Your task to perform on an android device: Open settings on Google Maps Image 0: 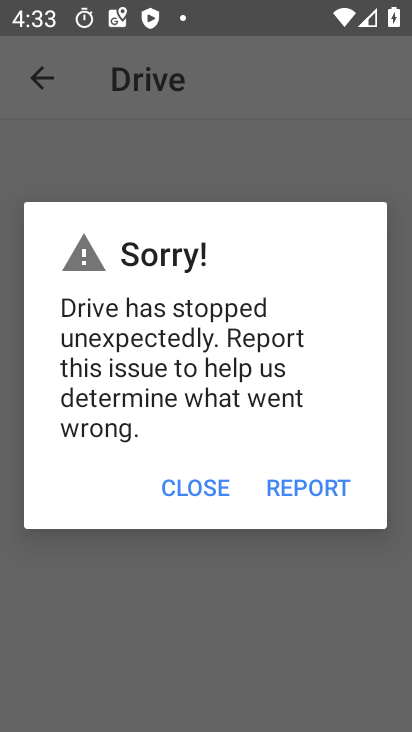
Step 0: press home button
Your task to perform on an android device: Open settings on Google Maps Image 1: 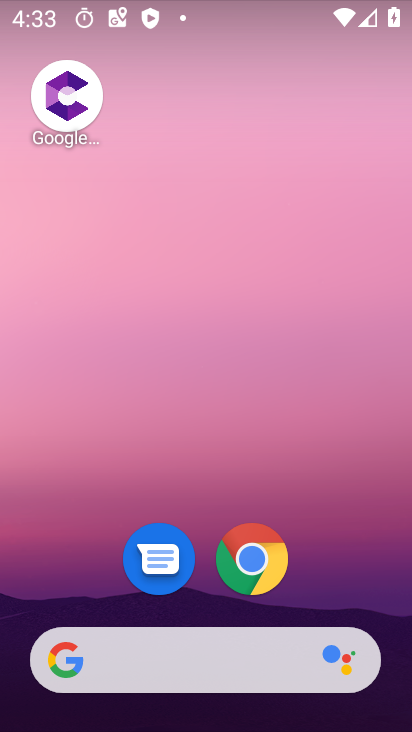
Step 1: drag from (338, 570) to (260, 67)
Your task to perform on an android device: Open settings on Google Maps Image 2: 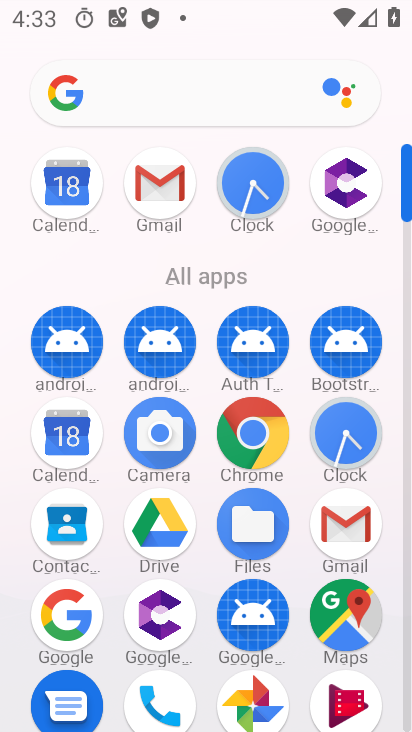
Step 2: click (331, 630)
Your task to perform on an android device: Open settings on Google Maps Image 3: 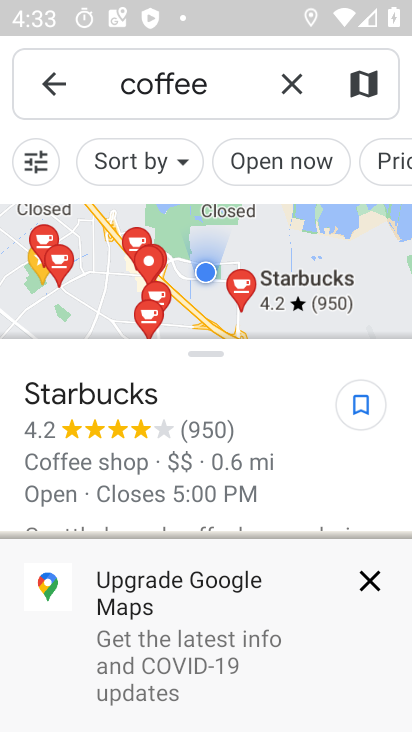
Step 3: click (283, 84)
Your task to perform on an android device: Open settings on Google Maps Image 4: 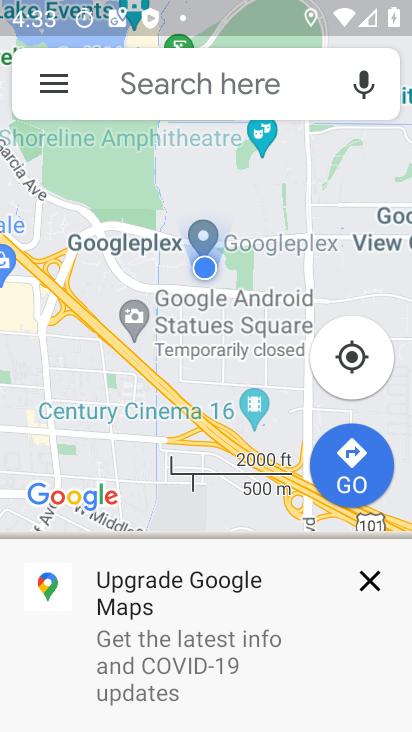
Step 4: click (51, 87)
Your task to perform on an android device: Open settings on Google Maps Image 5: 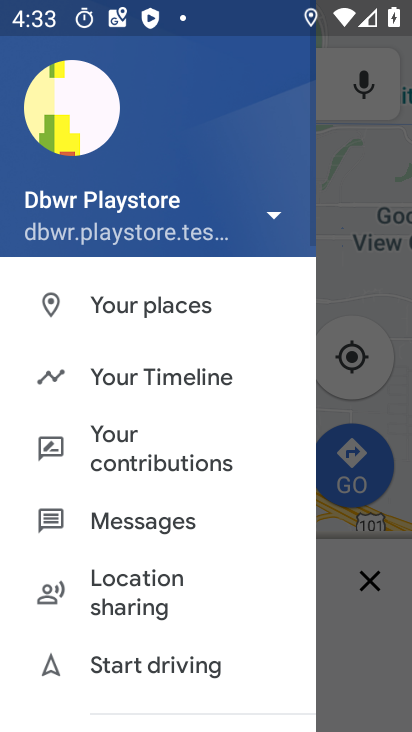
Step 5: drag from (196, 653) to (210, 263)
Your task to perform on an android device: Open settings on Google Maps Image 6: 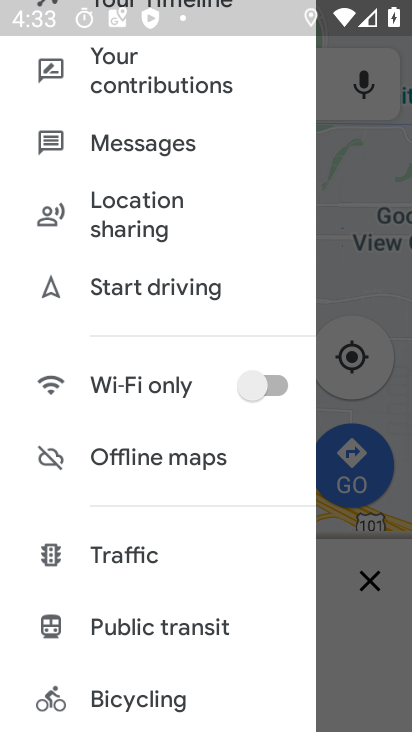
Step 6: drag from (149, 581) to (153, 187)
Your task to perform on an android device: Open settings on Google Maps Image 7: 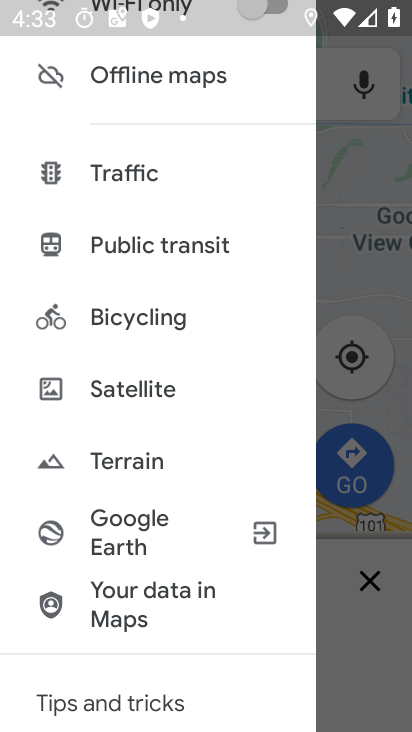
Step 7: drag from (162, 553) to (164, 292)
Your task to perform on an android device: Open settings on Google Maps Image 8: 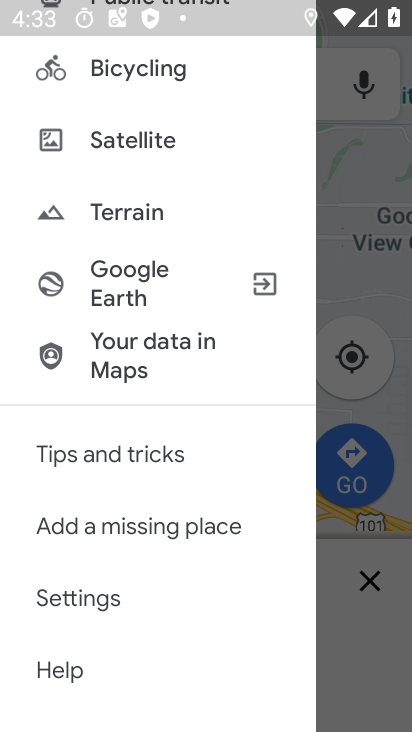
Step 8: click (125, 609)
Your task to perform on an android device: Open settings on Google Maps Image 9: 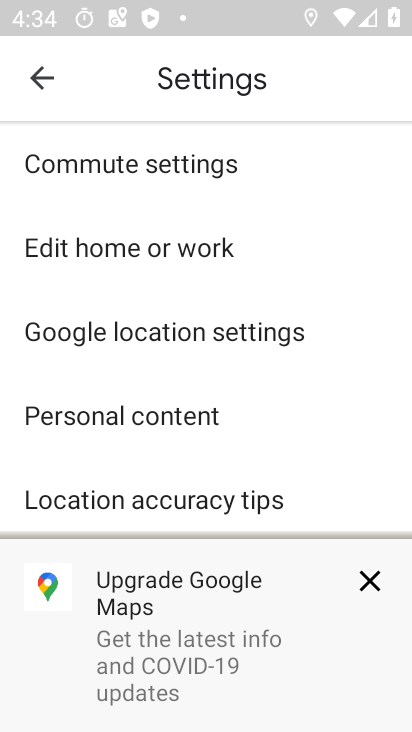
Step 9: task complete